Your task to perform on an android device: Open Google Chrome and open the bookmarks view Image 0: 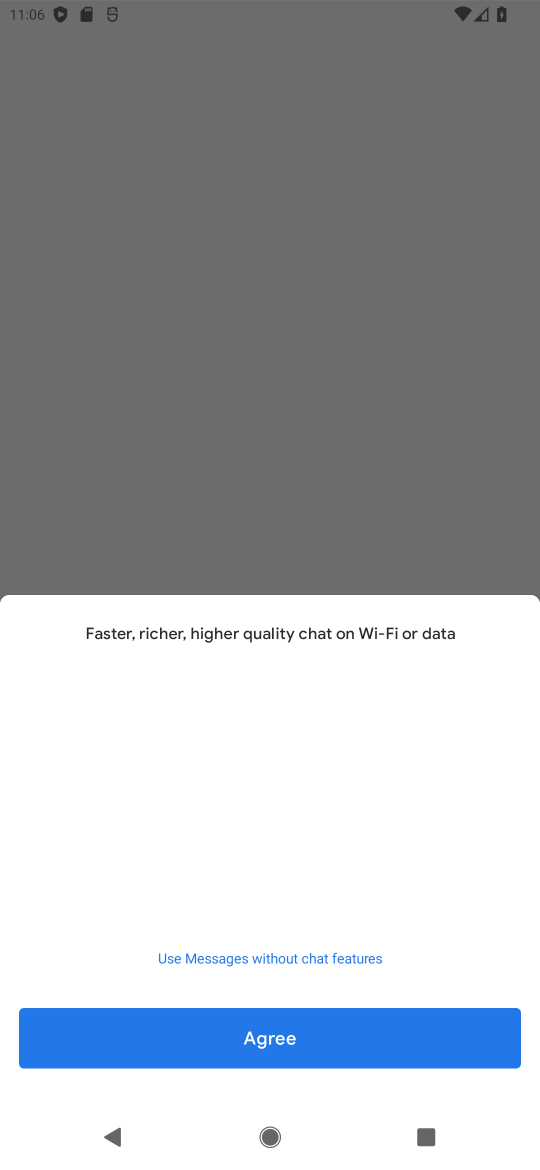
Step 0: press home button
Your task to perform on an android device: Open Google Chrome and open the bookmarks view Image 1: 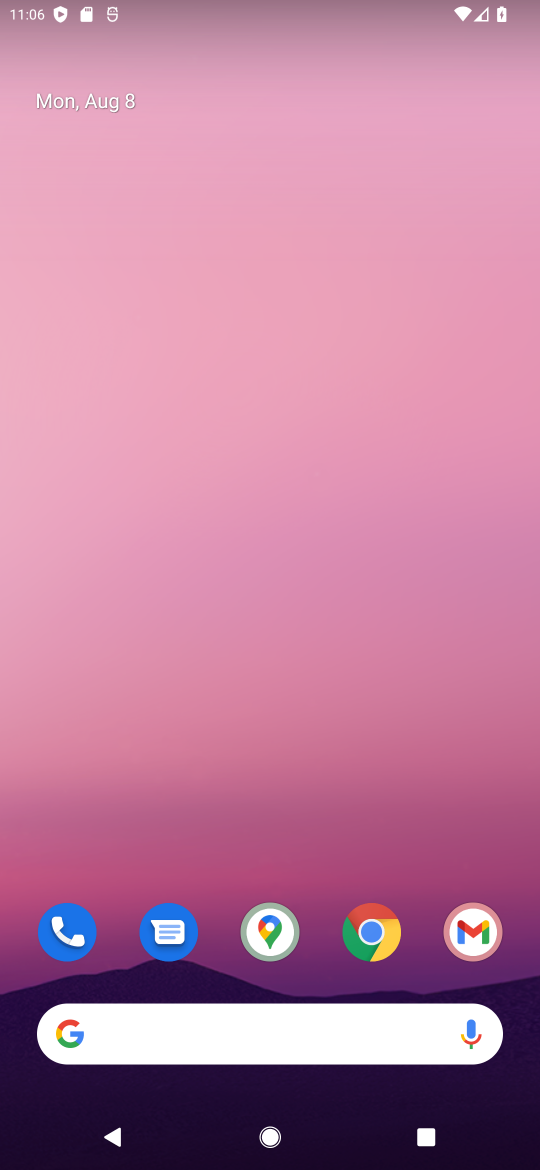
Step 1: press home button
Your task to perform on an android device: Open Google Chrome and open the bookmarks view Image 2: 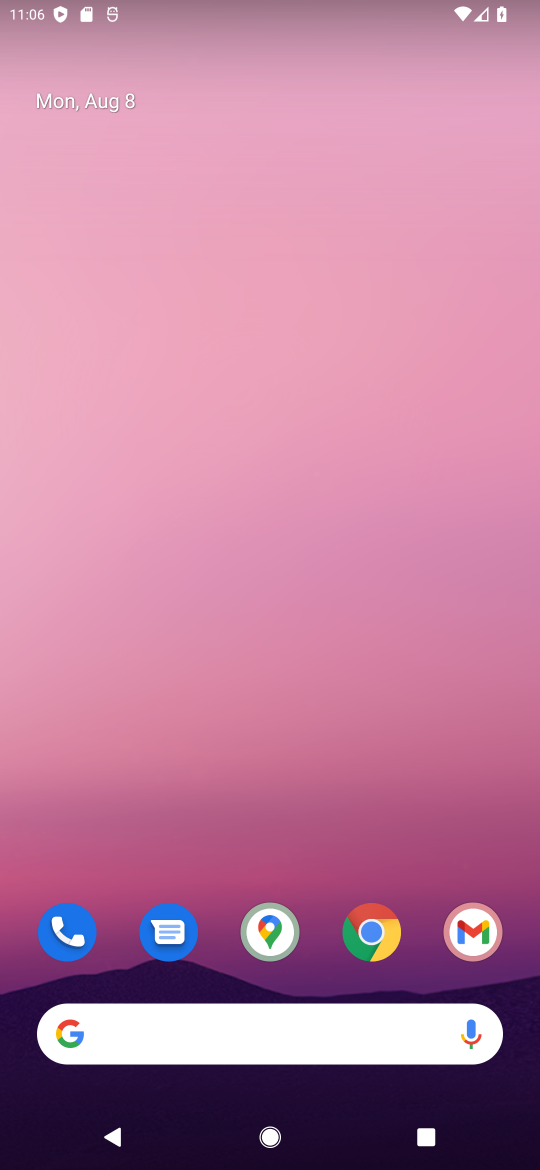
Step 2: click (392, 939)
Your task to perform on an android device: Open Google Chrome and open the bookmarks view Image 3: 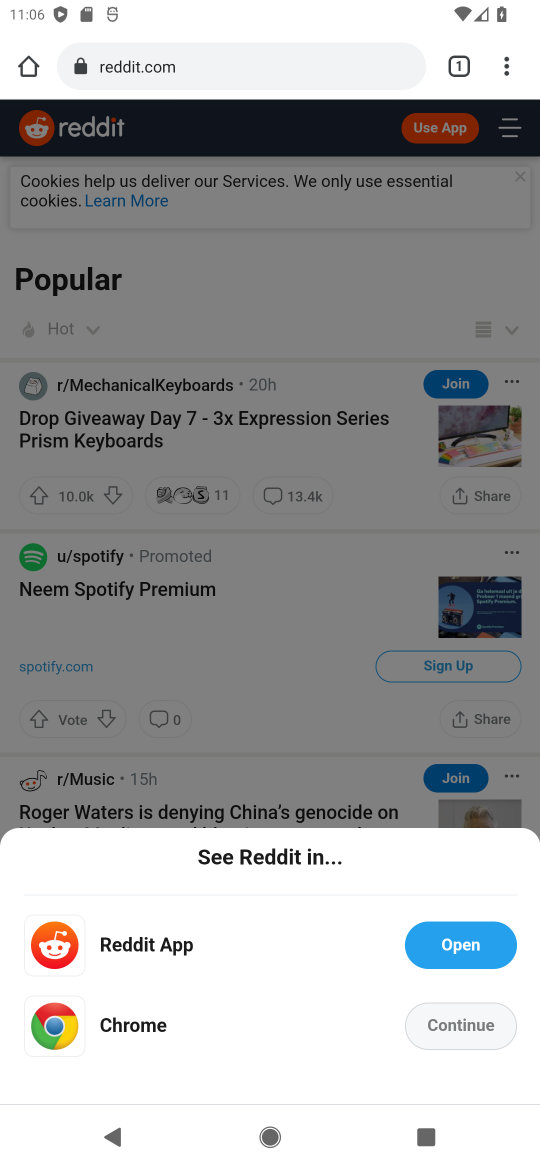
Step 3: click (505, 53)
Your task to perform on an android device: Open Google Chrome and open the bookmarks view Image 4: 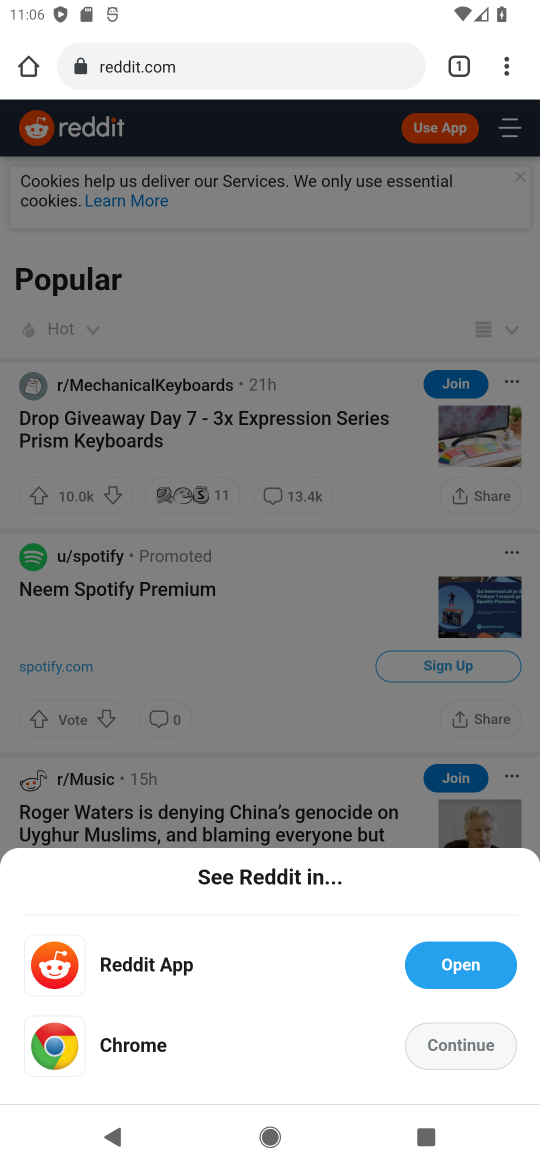
Step 4: click (512, 60)
Your task to perform on an android device: Open Google Chrome and open the bookmarks view Image 5: 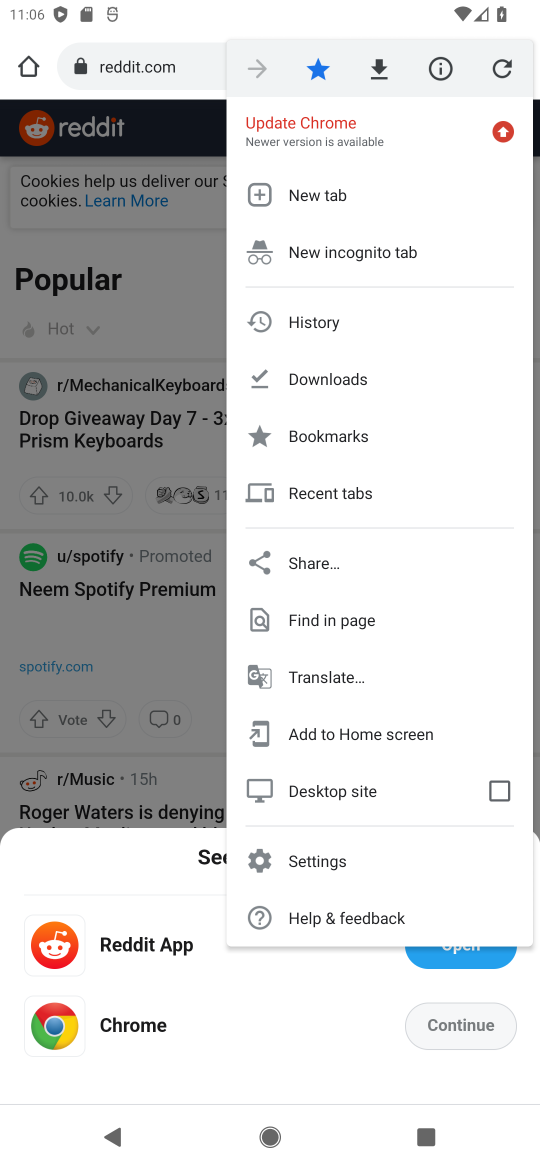
Step 5: click (308, 429)
Your task to perform on an android device: Open Google Chrome and open the bookmarks view Image 6: 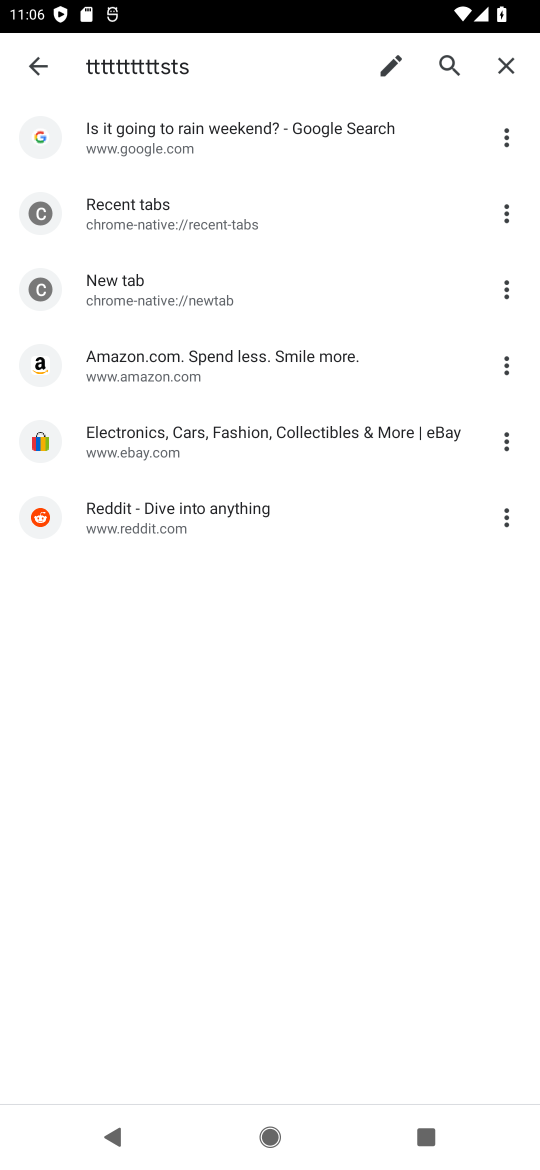
Step 6: task complete